Your task to perform on an android device: turn off smart reply in the gmail app Image 0: 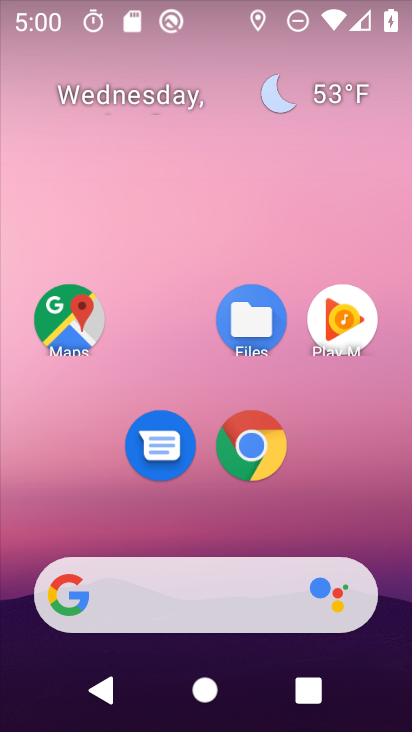
Step 0: drag from (353, 458) to (343, 154)
Your task to perform on an android device: turn off smart reply in the gmail app Image 1: 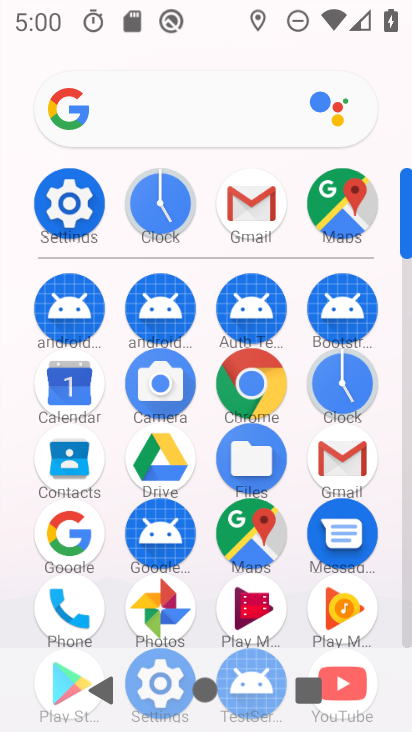
Step 1: click (253, 186)
Your task to perform on an android device: turn off smart reply in the gmail app Image 2: 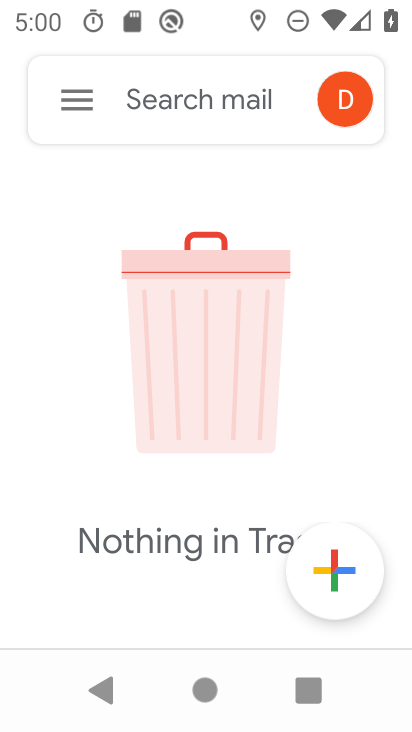
Step 2: click (58, 108)
Your task to perform on an android device: turn off smart reply in the gmail app Image 3: 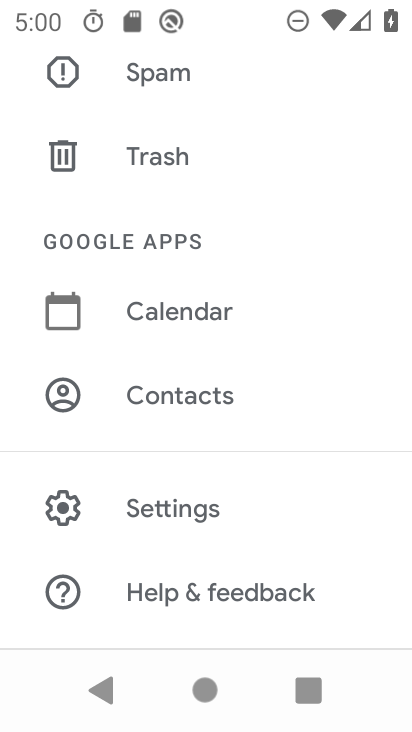
Step 3: click (200, 506)
Your task to perform on an android device: turn off smart reply in the gmail app Image 4: 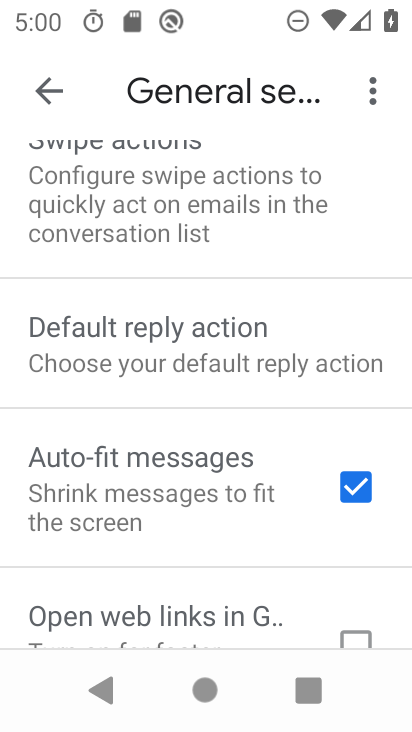
Step 4: drag from (132, 561) to (122, 268)
Your task to perform on an android device: turn off smart reply in the gmail app Image 5: 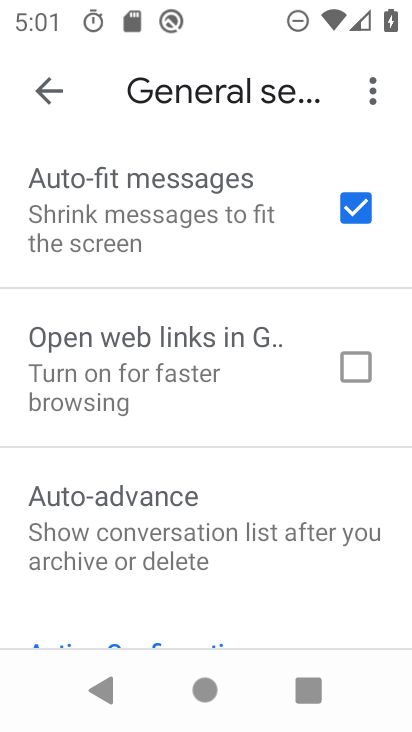
Step 5: drag from (149, 503) to (188, 204)
Your task to perform on an android device: turn off smart reply in the gmail app Image 6: 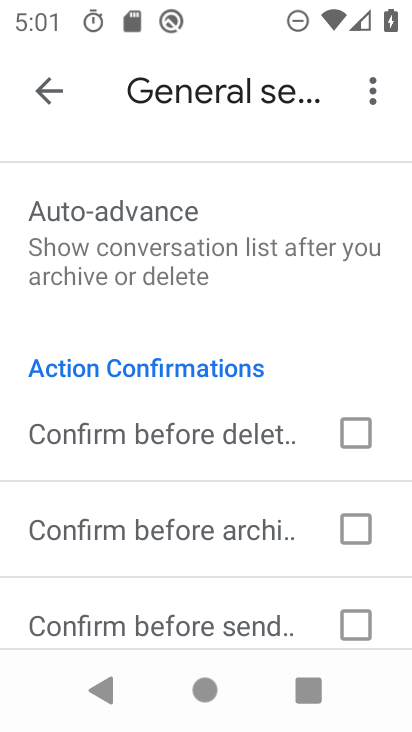
Step 6: drag from (145, 548) to (218, 231)
Your task to perform on an android device: turn off smart reply in the gmail app Image 7: 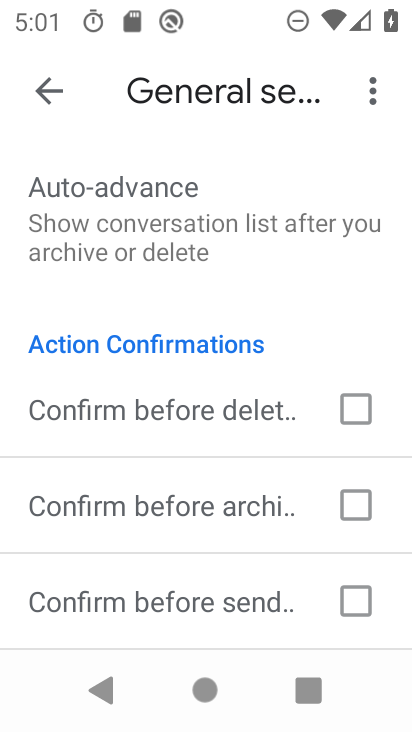
Step 7: drag from (252, 212) to (209, 565)
Your task to perform on an android device: turn off smart reply in the gmail app Image 8: 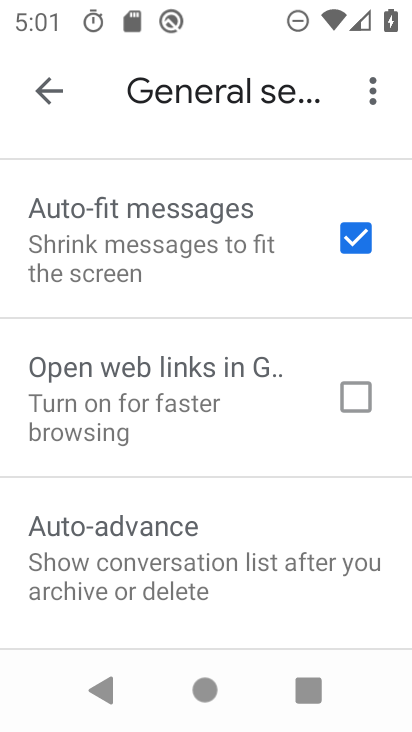
Step 8: drag from (223, 164) to (132, 548)
Your task to perform on an android device: turn off smart reply in the gmail app Image 9: 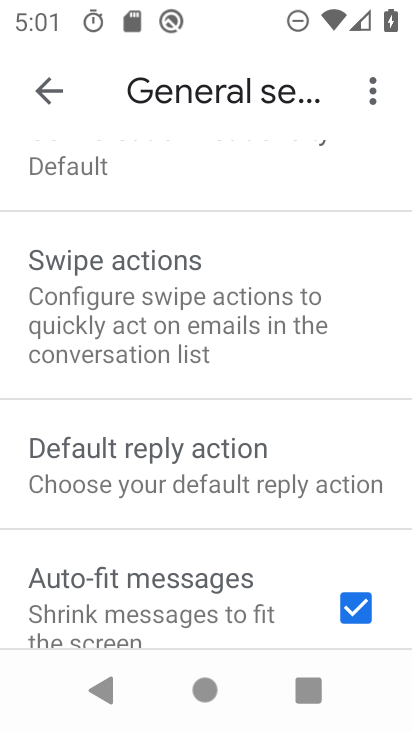
Step 9: drag from (240, 248) to (209, 578)
Your task to perform on an android device: turn off smart reply in the gmail app Image 10: 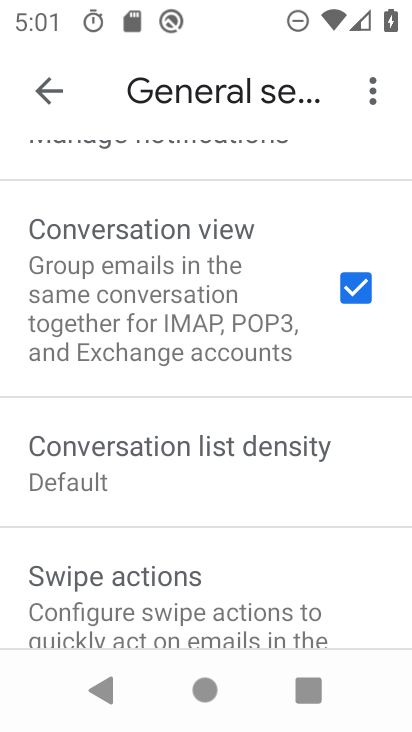
Step 10: drag from (269, 240) to (195, 633)
Your task to perform on an android device: turn off smart reply in the gmail app Image 11: 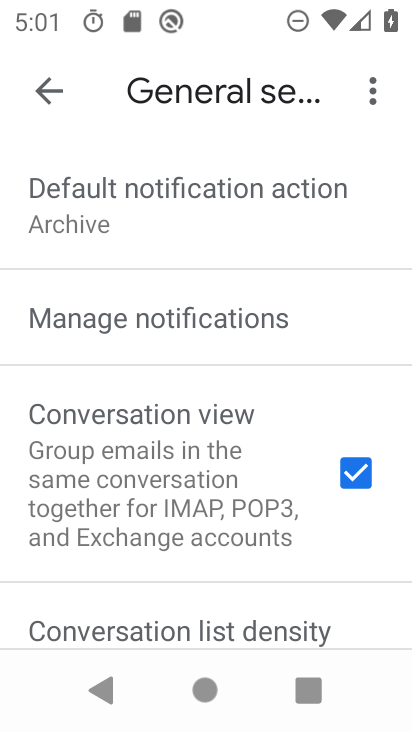
Step 11: drag from (170, 552) to (227, 272)
Your task to perform on an android device: turn off smart reply in the gmail app Image 12: 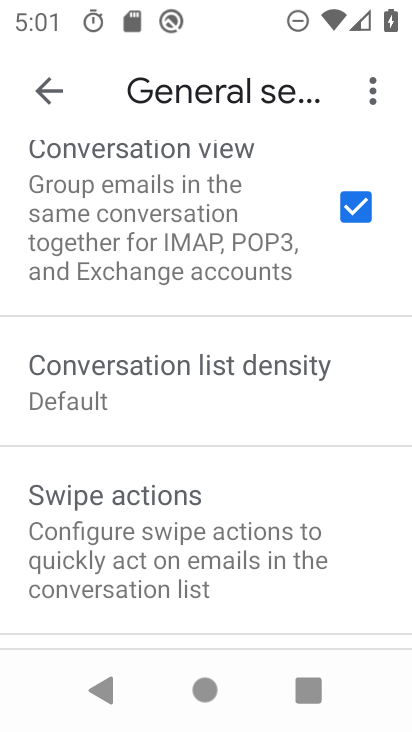
Step 12: drag from (204, 487) to (255, 223)
Your task to perform on an android device: turn off smart reply in the gmail app Image 13: 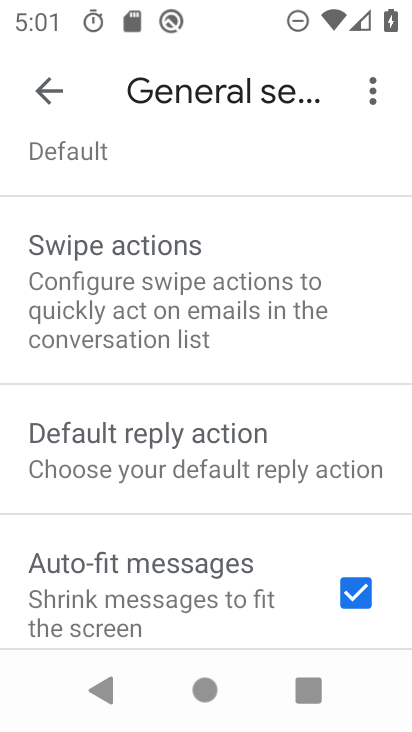
Step 13: drag from (181, 561) to (249, 213)
Your task to perform on an android device: turn off smart reply in the gmail app Image 14: 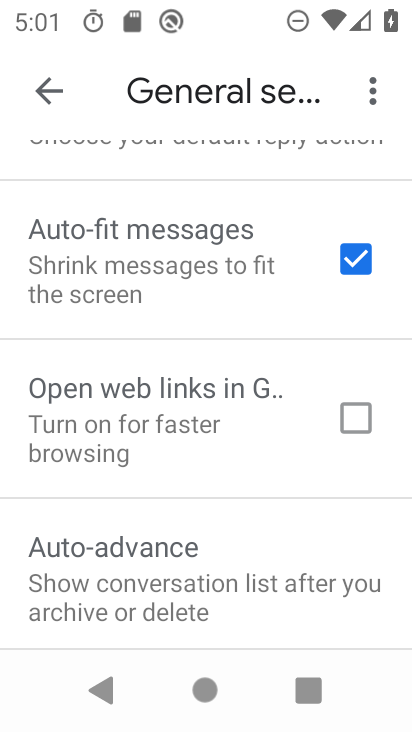
Step 14: click (203, 495)
Your task to perform on an android device: turn off smart reply in the gmail app Image 15: 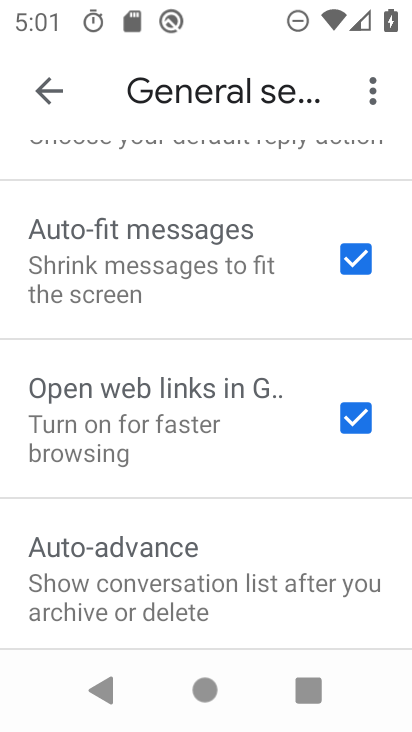
Step 15: task complete